Your task to perform on an android device: turn on showing notifications on the lock screen Image 0: 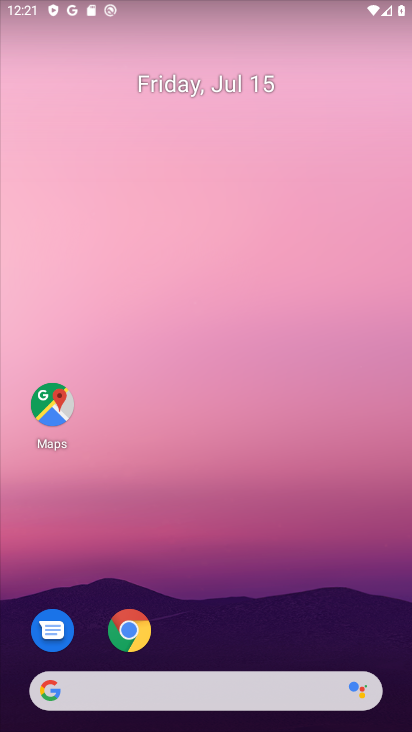
Step 0: drag from (237, 619) to (81, 122)
Your task to perform on an android device: turn on showing notifications on the lock screen Image 1: 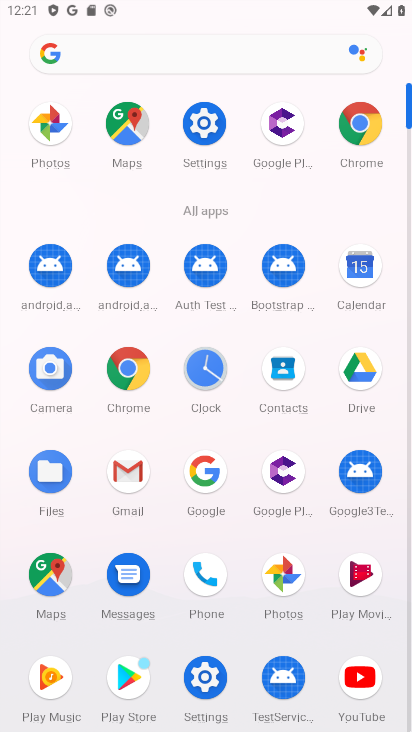
Step 1: click (210, 673)
Your task to perform on an android device: turn on showing notifications on the lock screen Image 2: 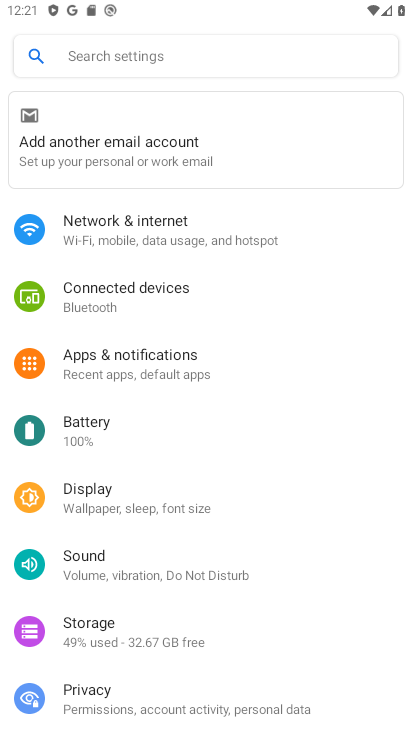
Step 2: click (184, 365)
Your task to perform on an android device: turn on showing notifications on the lock screen Image 3: 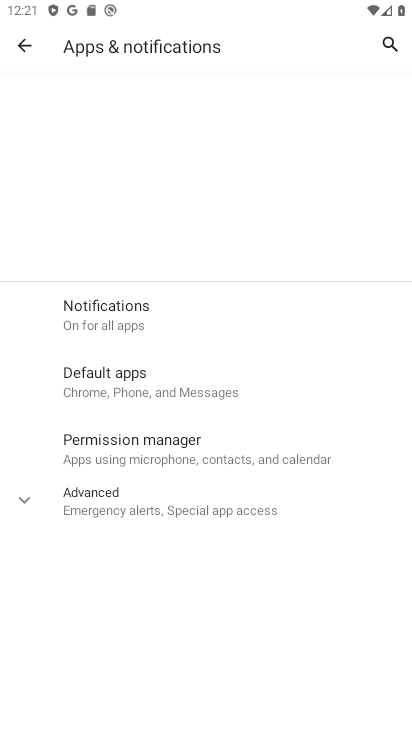
Step 3: click (131, 312)
Your task to perform on an android device: turn on showing notifications on the lock screen Image 4: 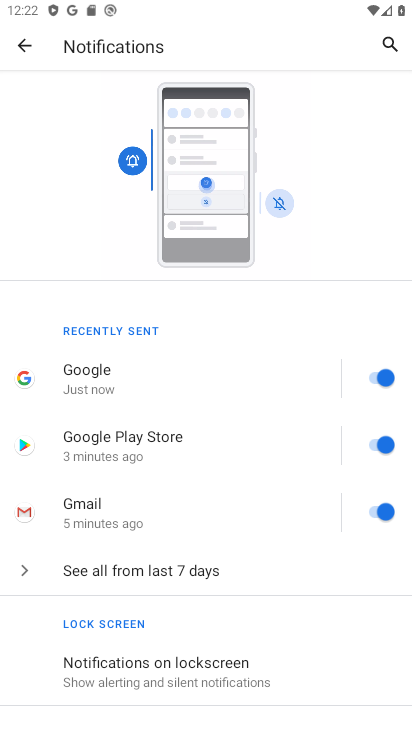
Step 4: click (195, 661)
Your task to perform on an android device: turn on showing notifications on the lock screen Image 5: 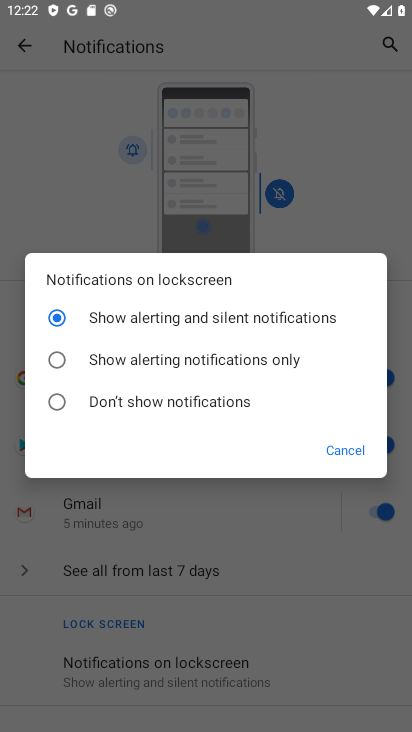
Step 5: task complete